Your task to perform on an android device: Go to Maps Image 0: 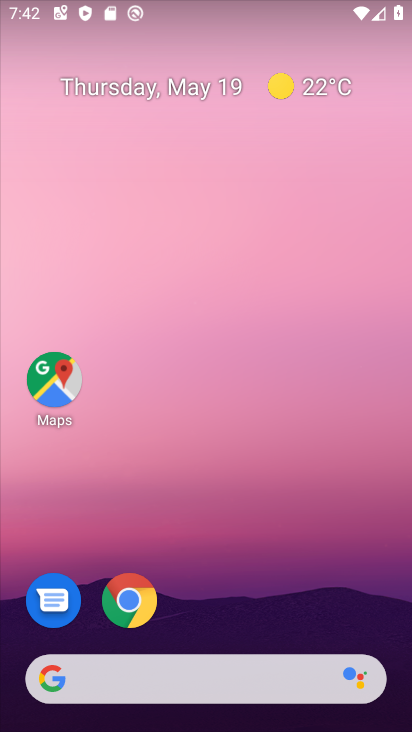
Step 0: drag from (294, 616) to (311, 164)
Your task to perform on an android device: Go to Maps Image 1: 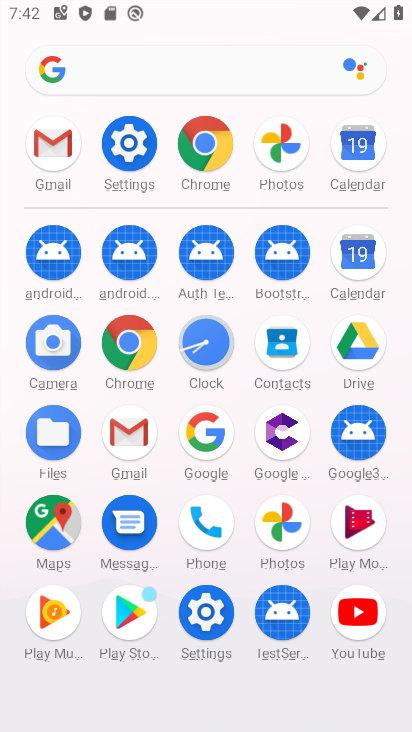
Step 1: click (32, 535)
Your task to perform on an android device: Go to Maps Image 2: 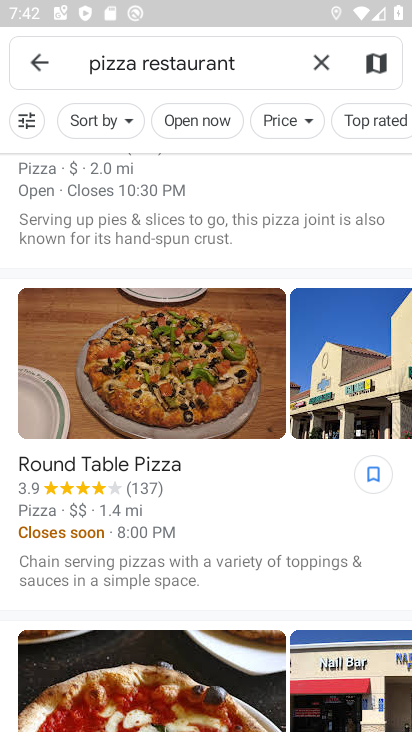
Step 2: click (323, 77)
Your task to perform on an android device: Go to Maps Image 3: 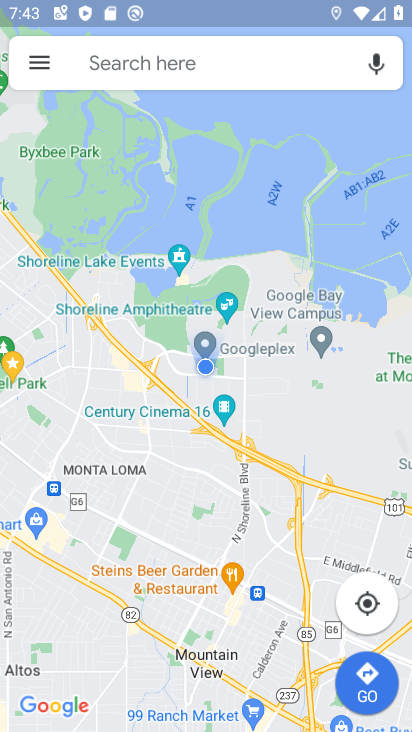
Step 3: task complete